Your task to perform on an android device: empty trash in the gmail app Image 0: 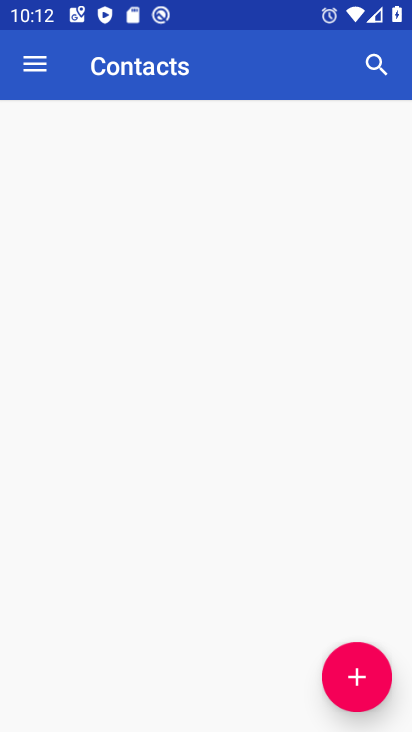
Step 0: press home button
Your task to perform on an android device: empty trash in the gmail app Image 1: 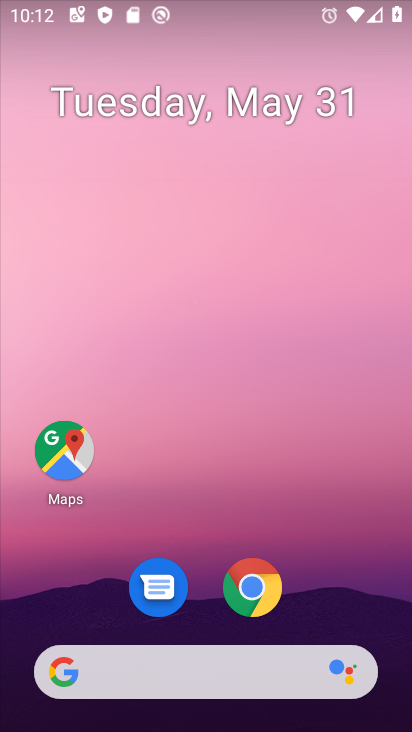
Step 1: drag from (368, 603) to (362, 323)
Your task to perform on an android device: empty trash in the gmail app Image 2: 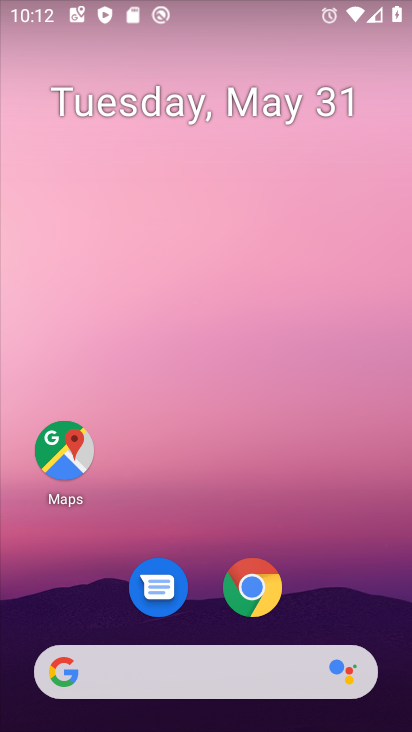
Step 2: drag from (354, 573) to (341, 172)
Your task to perform on an android device: empty trash in the gmail app Image 3: 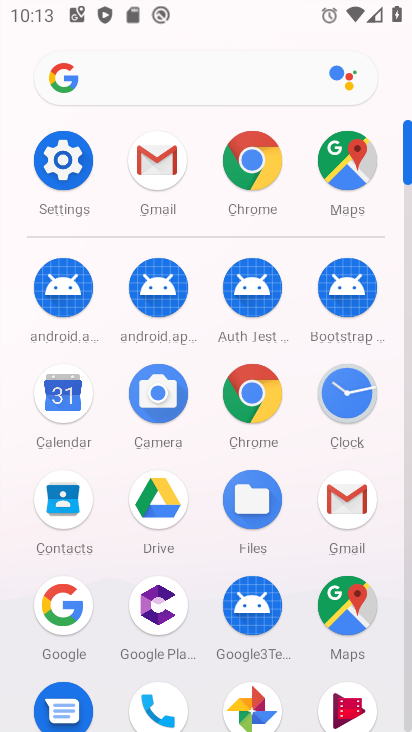
Step 3: click (344, 498)
Your task to perform on an android device: empty trash in the gmail app Image 4: 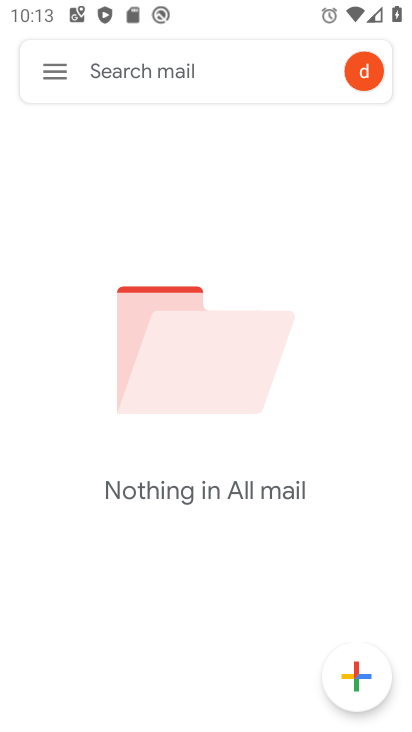
Step 4: click (50, 79)
Your task to perform on an android device: empty trash in the gmail app Image 5: 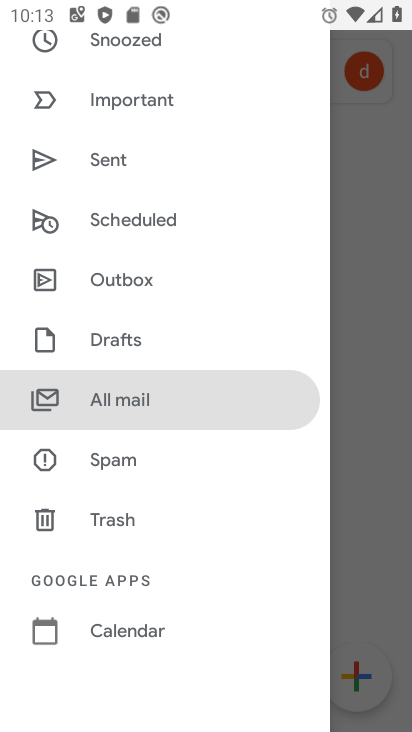
Step 5: drag from (255, 206) to (264, 282)
Your task to perform on an android device: empty trash in the gmail app Image 6: 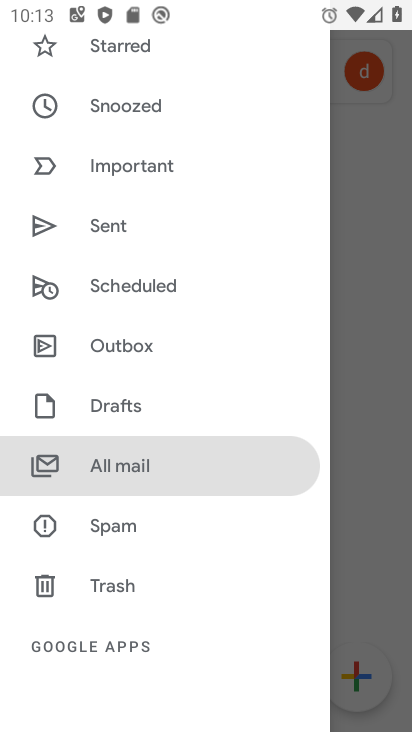
Step 6: drag from (275, 163) to (282, 279)
Your task to perform on an android device: empty trash in the gmail app Image 7: 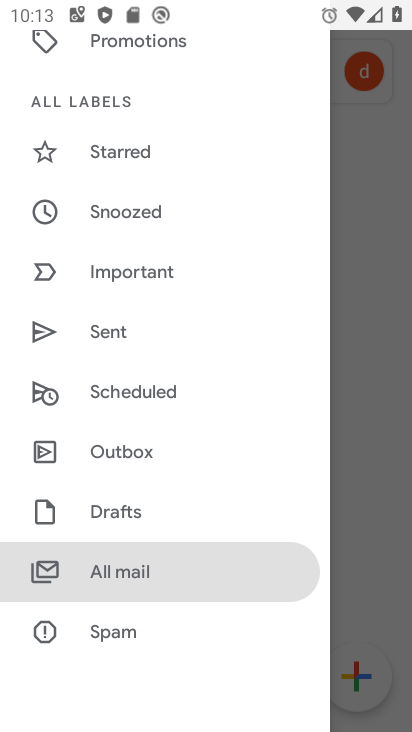
Step 7: drag from (255, 203) to (258, 275)
Your task to perform on an android device: empty trash in the gmail app Image 8: 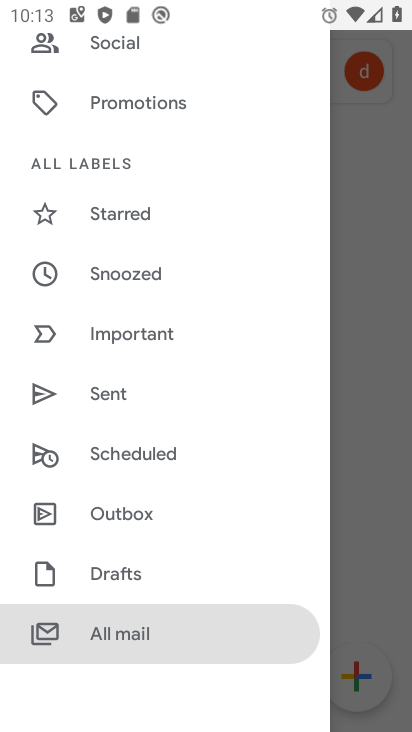
Step 8: drag from (257, 185) to (271, 292)
Your task to perform on an android device: empty trash in the gmail app Image 9: 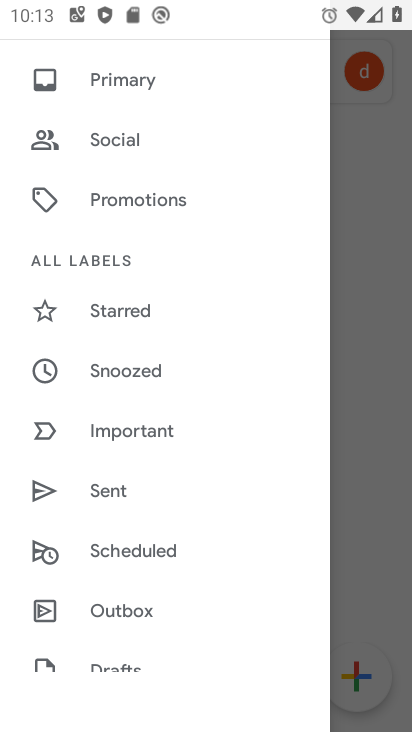
Step 9: drag from (244, 179) to (253, 309)
Your task to perform on an android device: empty trash in the gmail app Image 10: 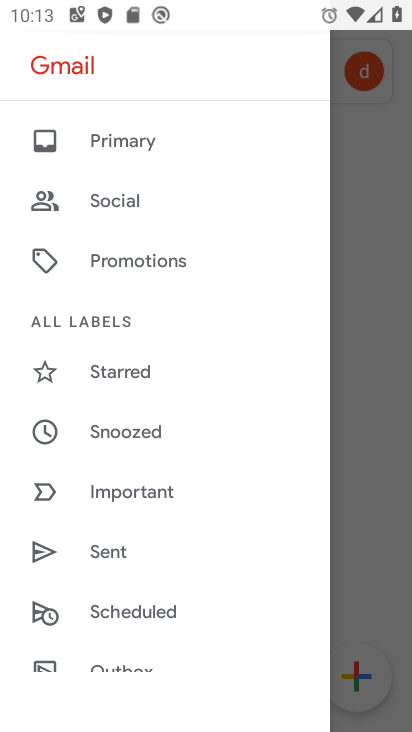
Step 10: drag from (271, 345) to (254, 235)
Your task to perform on an android device: empty trash in the gmail app Image 11: 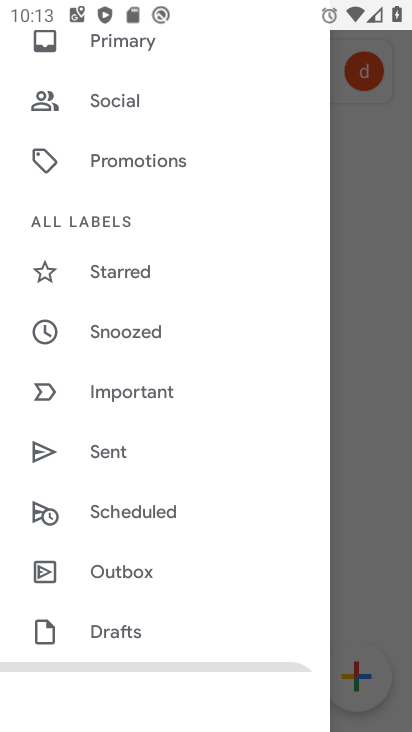
Step 11: drag from (266, 350) to (281, 273)
Your task to perform on an android device: empty trash in the gmail app Image 12: 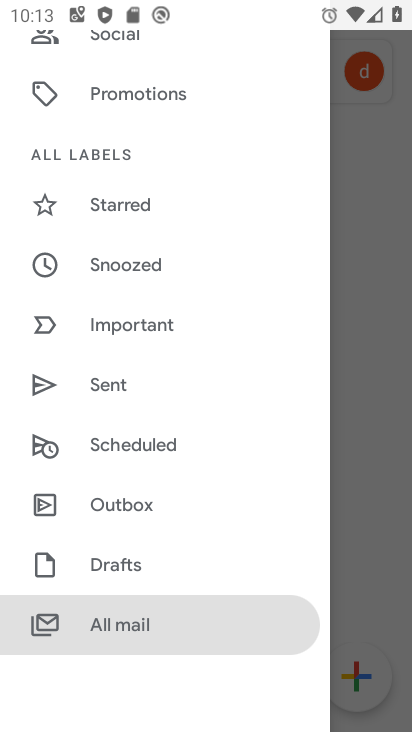
Step 12: drag from (291, 413) to (261, 266)
Your task to perform on an android device: empty trash in the gmail app Image 13: 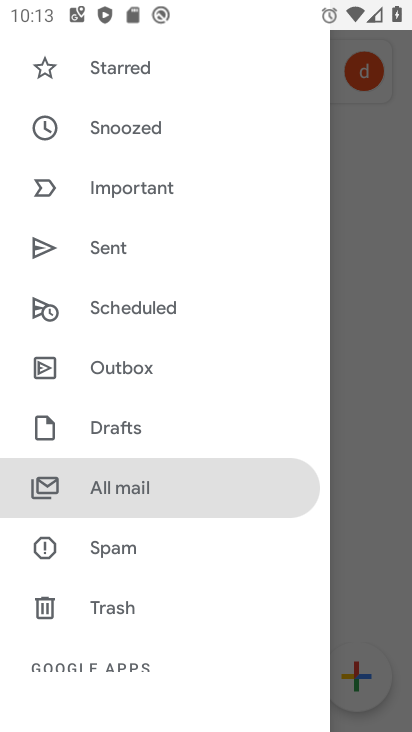
Step 13: drag from (248, 400) to (254, 302)
Your task to perform on an android device: empty trash in the gmail app Image 14: 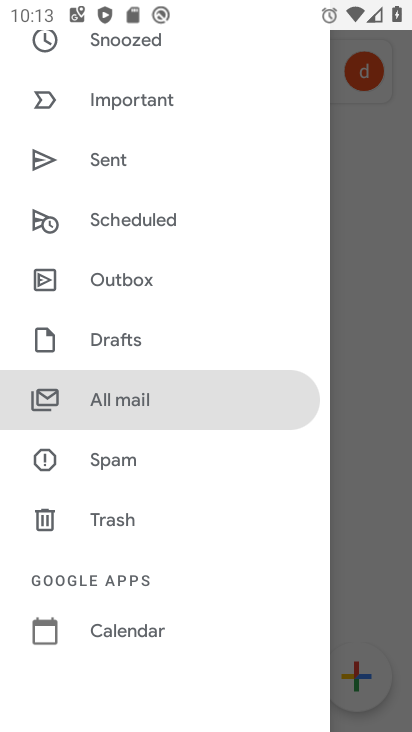
Step 14: drag from (270, 383) to (267, 261)
Your task to perform on an android device: empty trash in the gmail app Image 15: 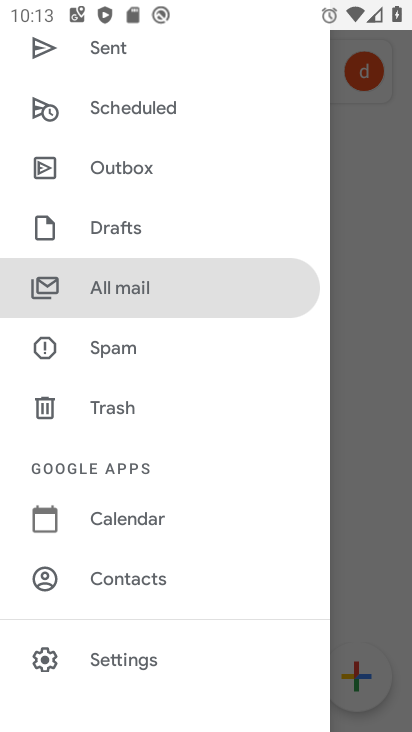
Step 15: drag from (275, 438) to (287, 309)
Your task to perform on an android device: empty trash in the gmail app Image 16: 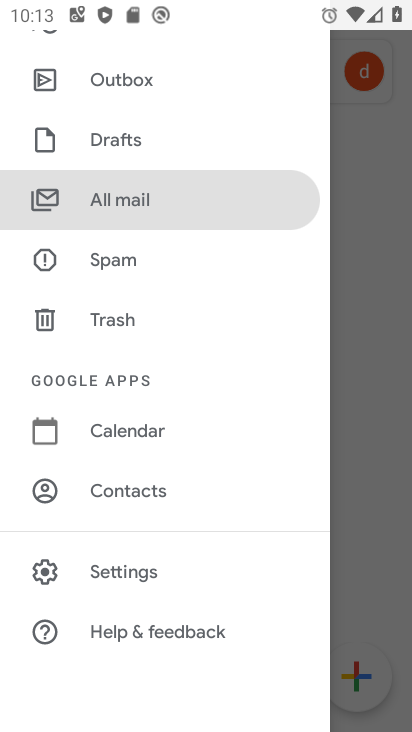
Step 16: click (195, 333)
Your task to perform on an android device: empty trash in the gmail app Image 17: 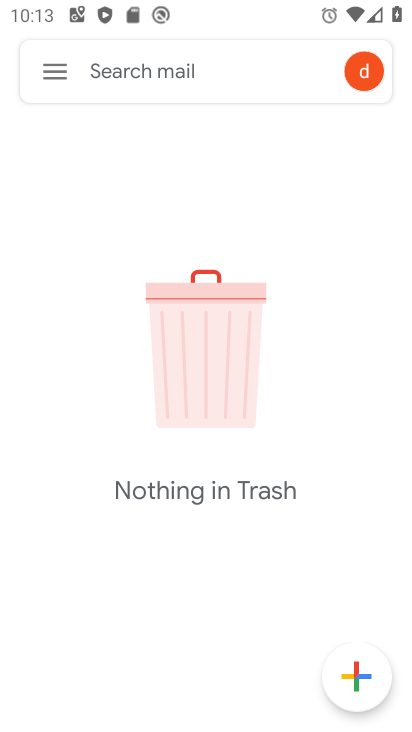
Step 17: task complete